Your task to perform on an android device: When is my next appointment? Image 0: 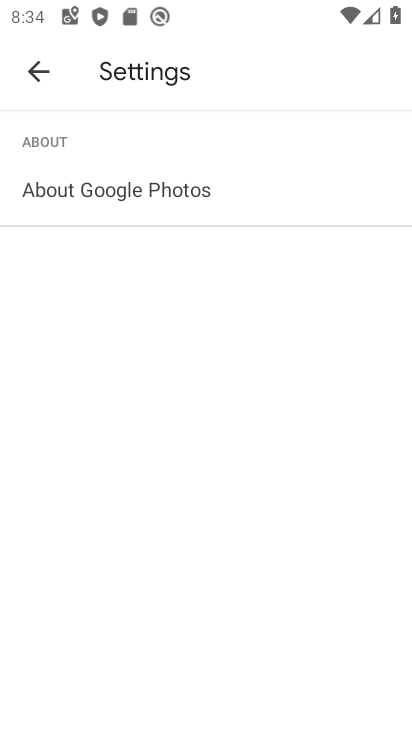
Step 0: press home button
Your task to perform on an android device: When is my next appointment? Image 1: 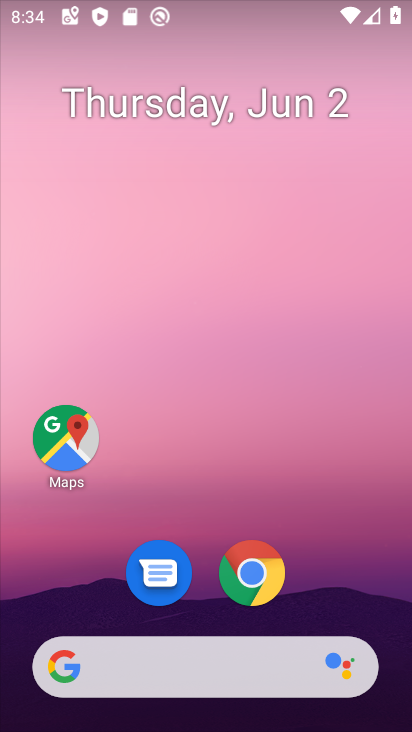
Step 1: drag from (340, 592) to (244, 17)
Your task to perform on an android device: When is my next appointment? Image 2: 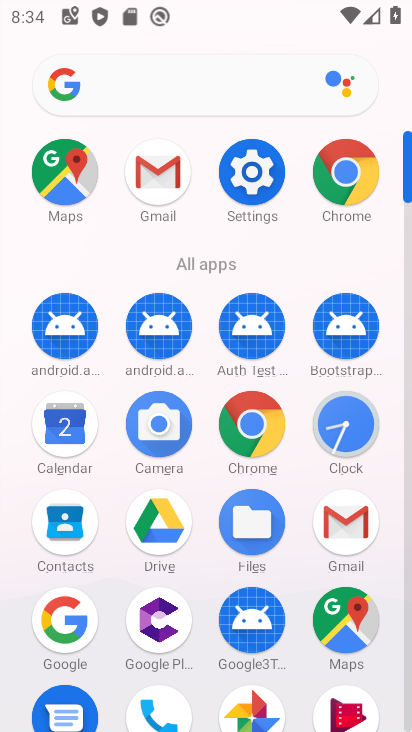
Step 2: click (54, 441)
Your task to perform on an android device: When is my next appointment? Image 3: 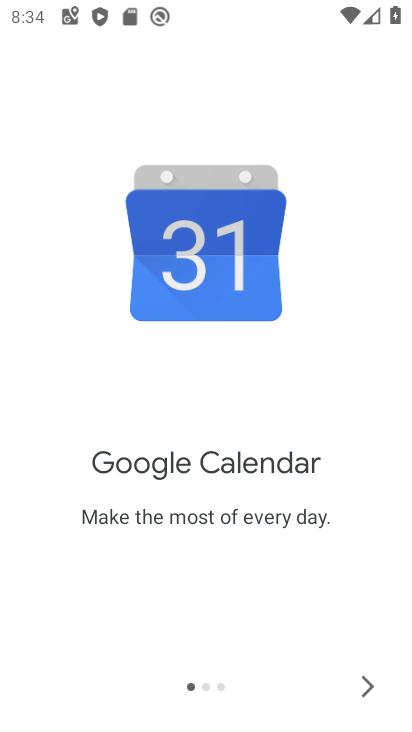
Step 3: click (355, 673)
Your task to perform on an android device: When is my next appointment? Image 4: 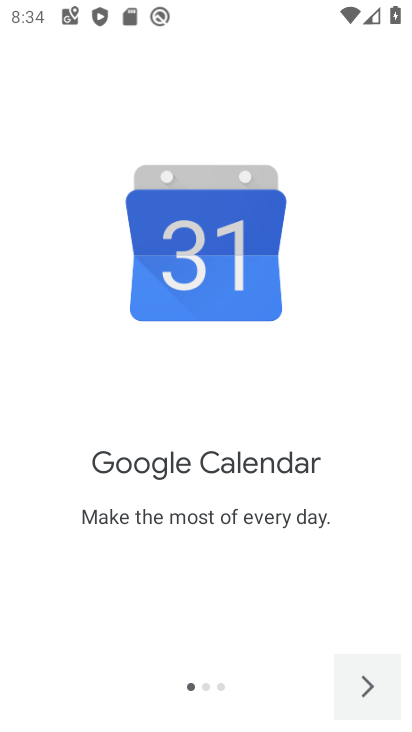
Step 4: click (355, 673)
Your task to perform on an android device: When is my next appointment? Image 5: 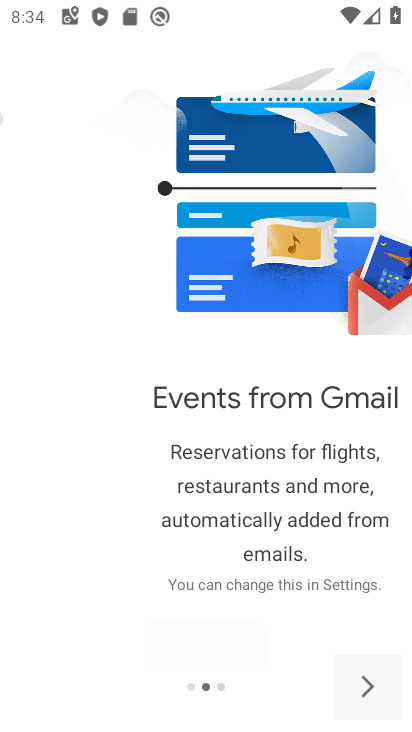
Step 5: click (355, 673)
Your task to perform on an android device: When is my next appointment? Image 6: 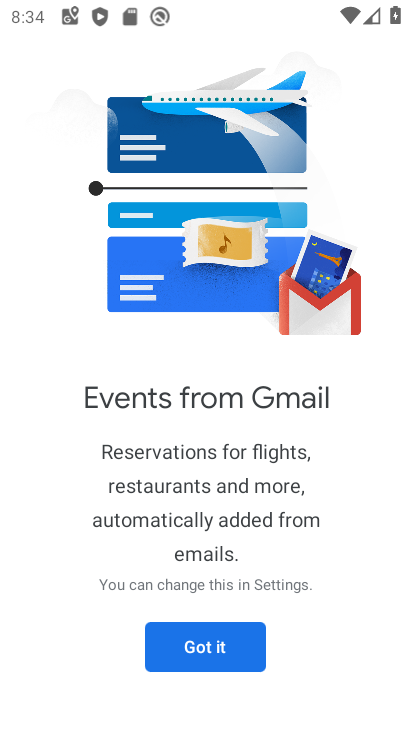
Step 6: click (355, 673)
Your task to perform on an android device: When is my next appointment? Image 7: 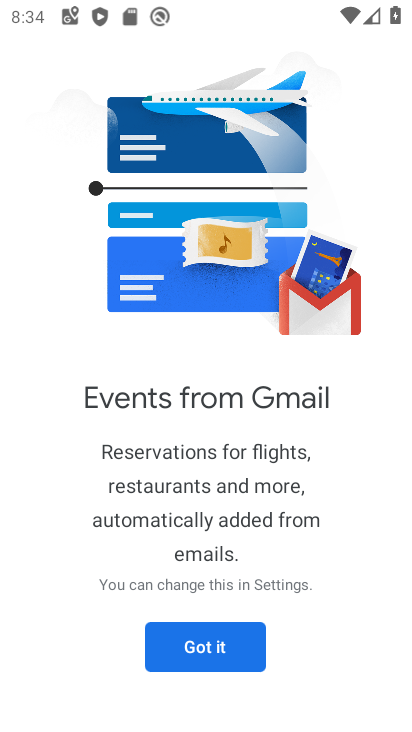
Step 7: click (207, 596)
Your task to perform on an android device: When is my next appointment? Image 8: 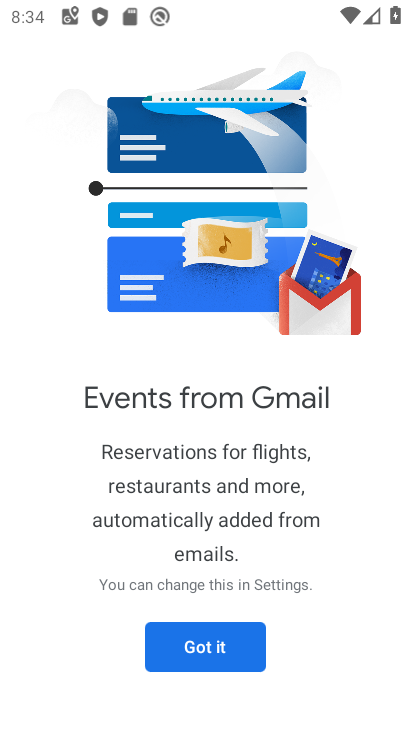
Step 8: click (219, 635)
Your task to perform on an android device: When is my next appointment? Image 9: 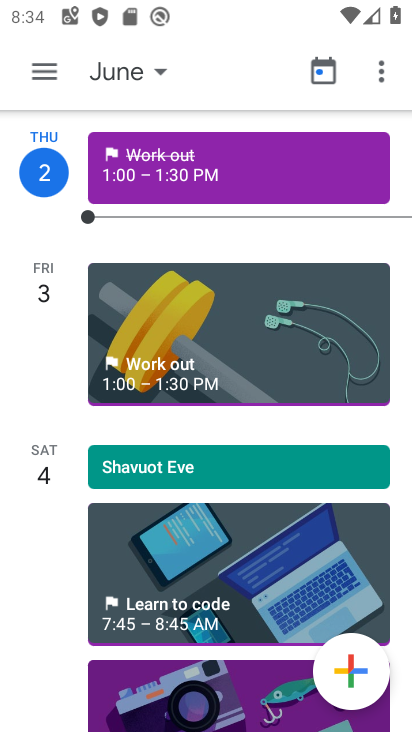
Step 9: click (154, 73)
Your task to perform on an android device: When is my next appointment? Image 10: 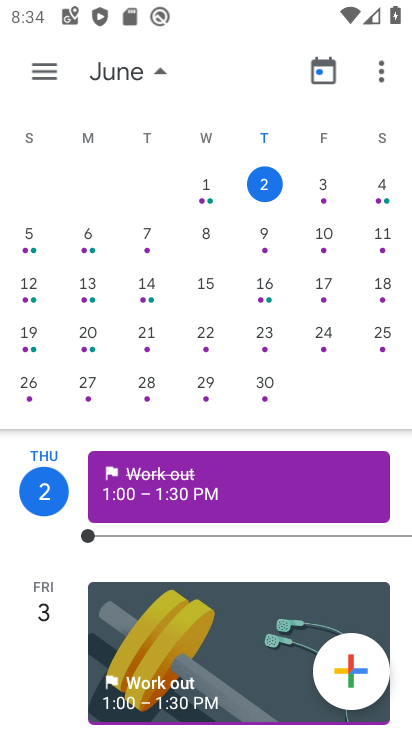
Step 10: click (327, 179)
Your task to perform on an android device: When is my next appointment? Image 11: 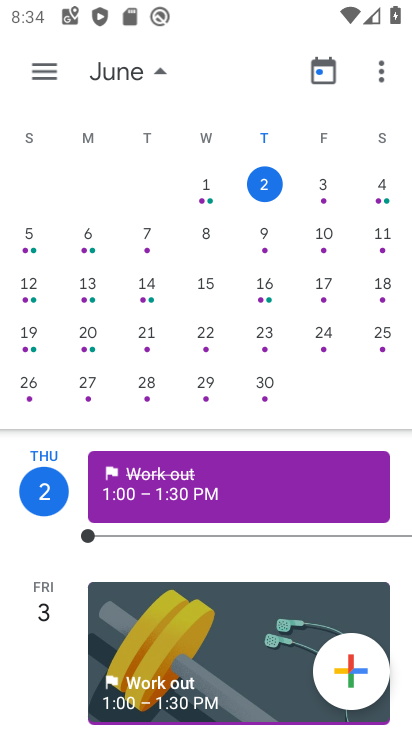
Step 11: click (320, 193)
Your task to perform on an android device: When is my next appointment? Image 12: 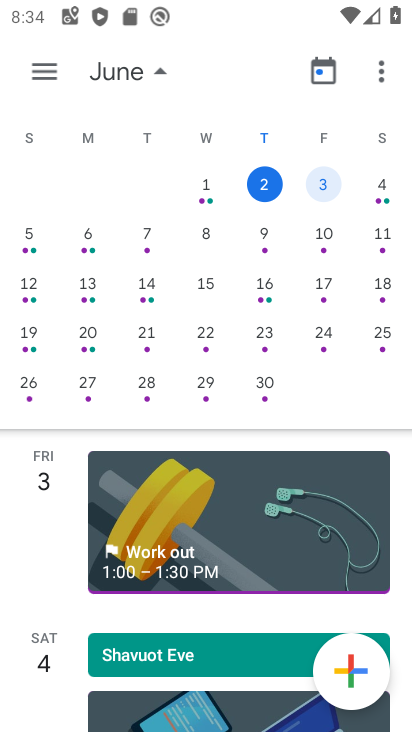
Step 12: click (156, 81)
Your task to perform on an android device: When is my next appointment? Image 13: 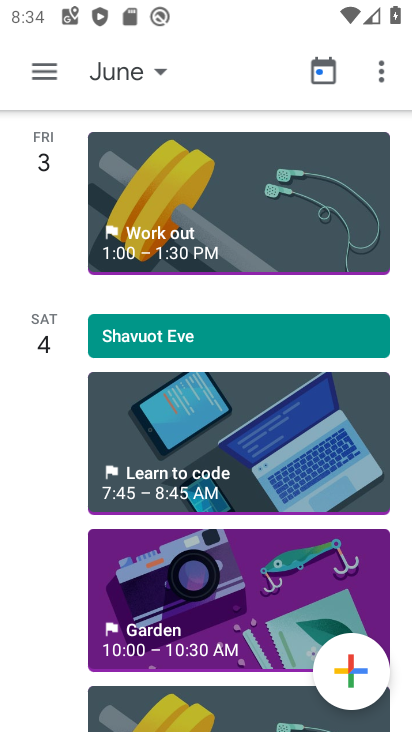
Step 13: task complete